Your task to perform on an android device: Open privacy settings Image 0: 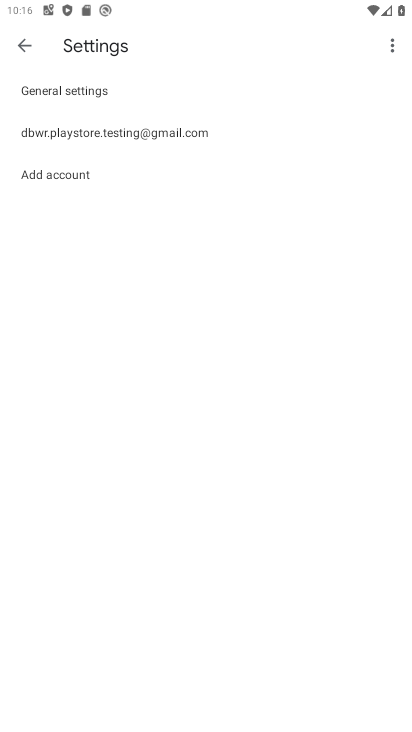
Step 0: press home button
Your task to perform on an android device: Open privacy settings Image 1: 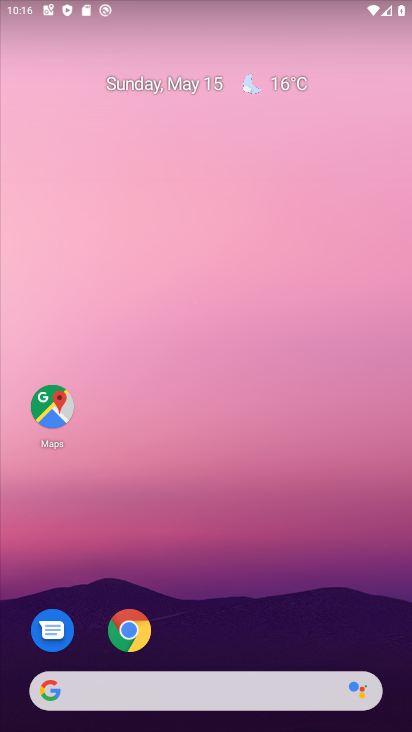
Step 1: drag from (231, 640) to (232, 155)
Your task to perform on an android device: Open privacy settings Image 2: 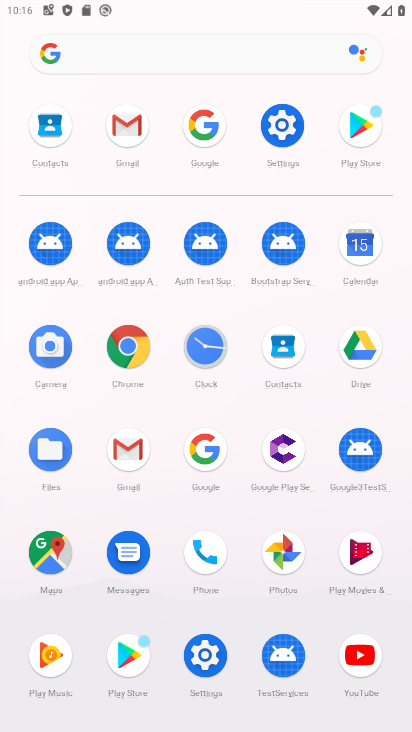
Step 2: click (275, 133)
Your task to perform on an android device: Open privacy settings Image 3: 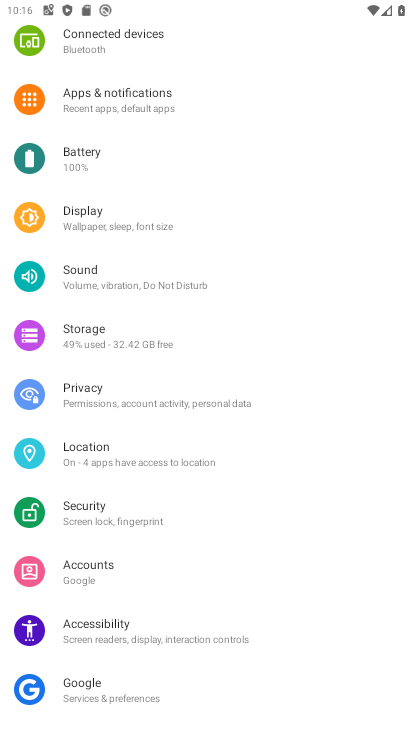
Step 3: click (130, 398)
Your task to perform on an android device: Open privacy settings Image 4: 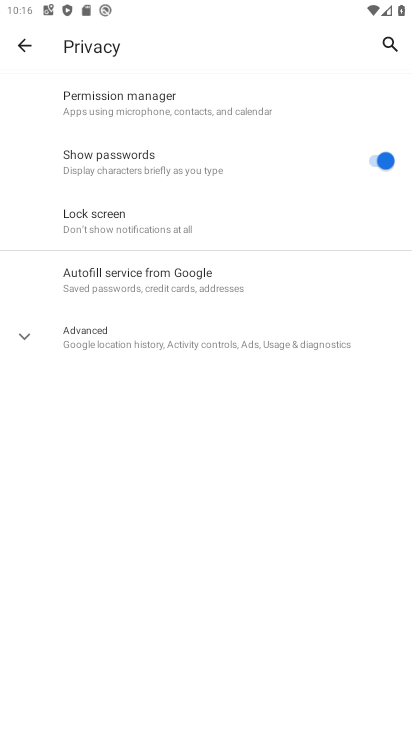
Step 4: task complete